Your task to perform on an android device: toggle sleep mode Image 0: 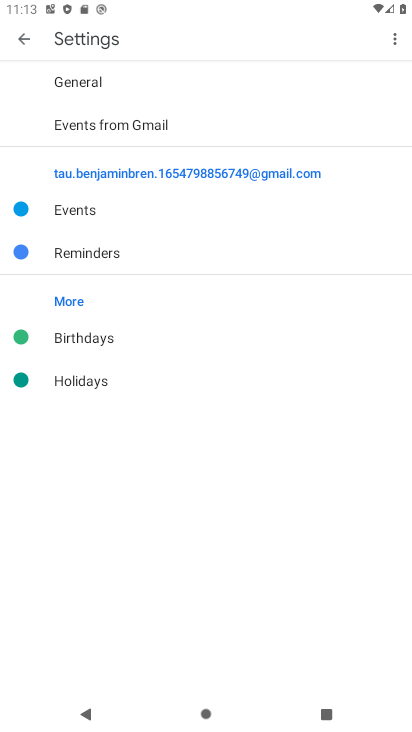
Step 0: press home button
Your task to perform on an android device: toggle sleep mode Image 1: 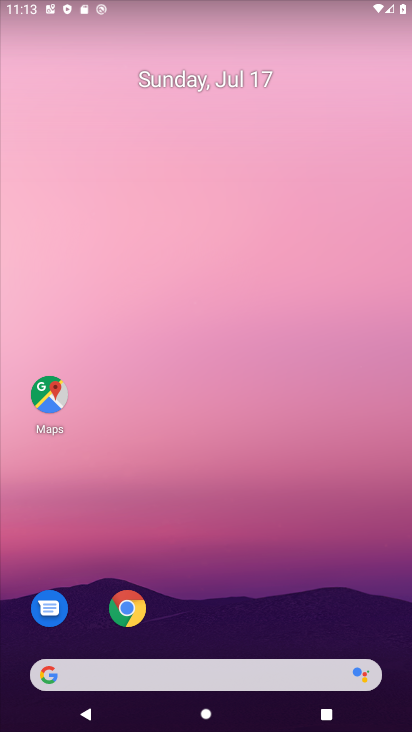
Step 1: drag from (229, 659) to (181, 9)
Your task to perform on an android device: toggle sleep mode Image 2: 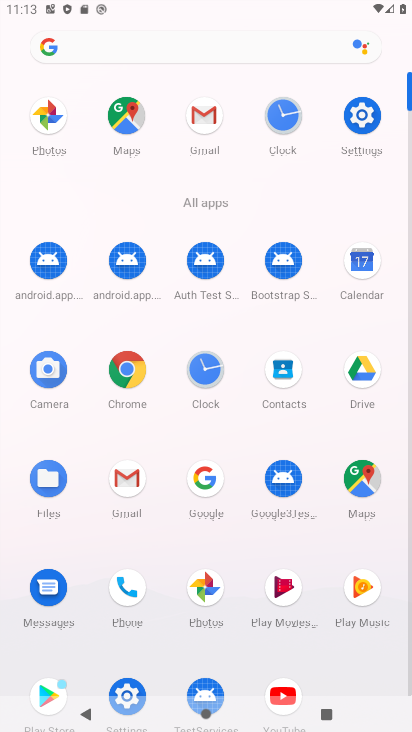
Step 2: click (356, 112)
Your task to perform on an android device: toggle sleep mode Image 3: 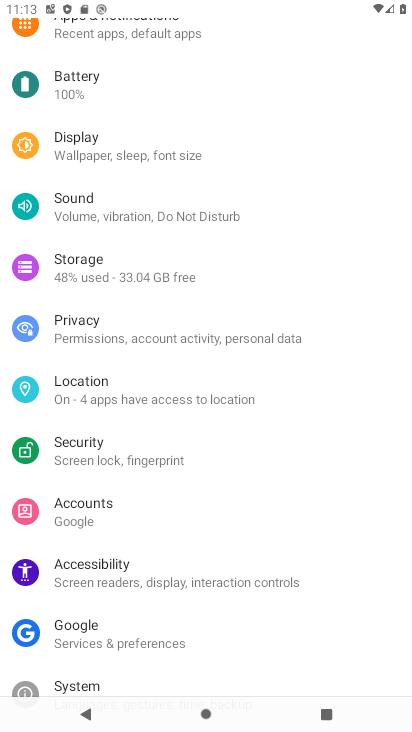
Step 3: task complete